Your task to perform on an android device: Open Wikipedia Image 0: 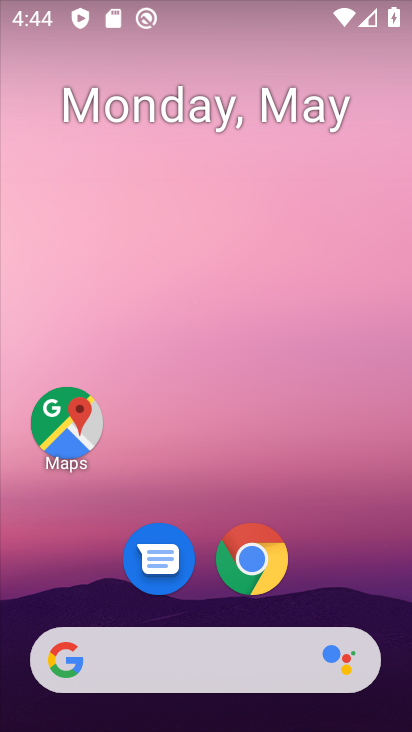
Step 0: drag from (316, 536) to (316, 44)
Your task to perform on an android device: Open Wikipedia Image 1: 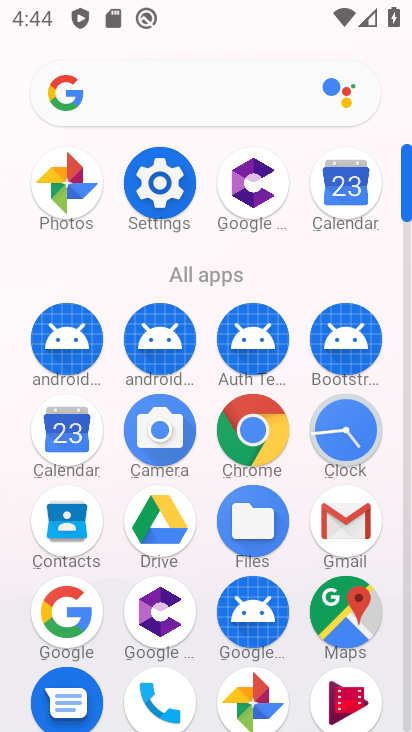
Step 1: click (261, 433)
Your task to perform on an android device: Open Wikipedia Image 2: 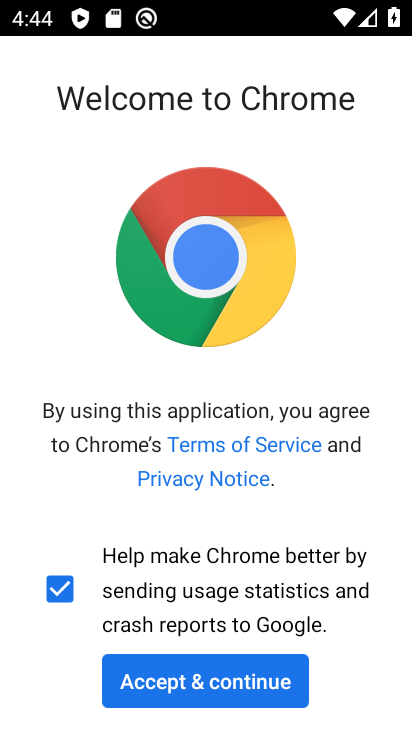
Step 2: click (192, 676)
Your task to perform on an android device: Open Wikipedia Image 3: 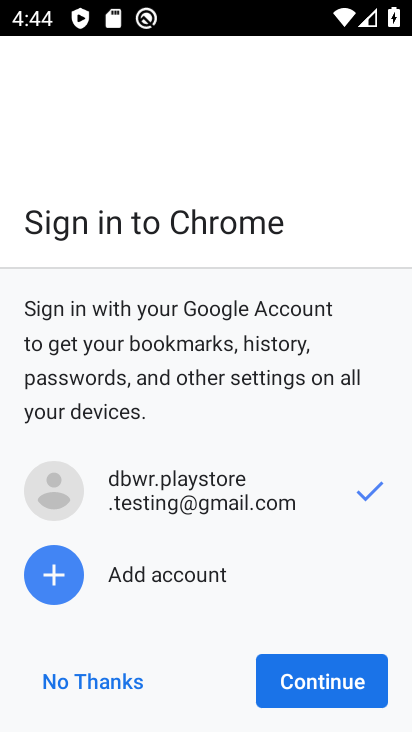
Step 3: click (116, 679)
Your task to perform on an android device: Open Wikipedia Image 4: 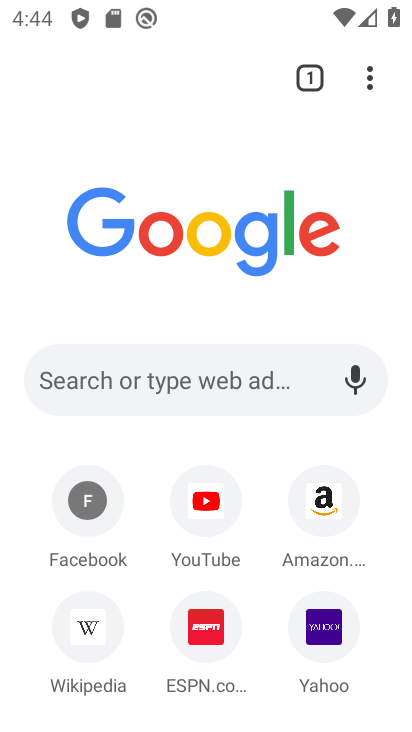
Step 4: drag from (377, 75) to (201, 149)
Your task to perform on an android device: Open Wikipedia Image 5: 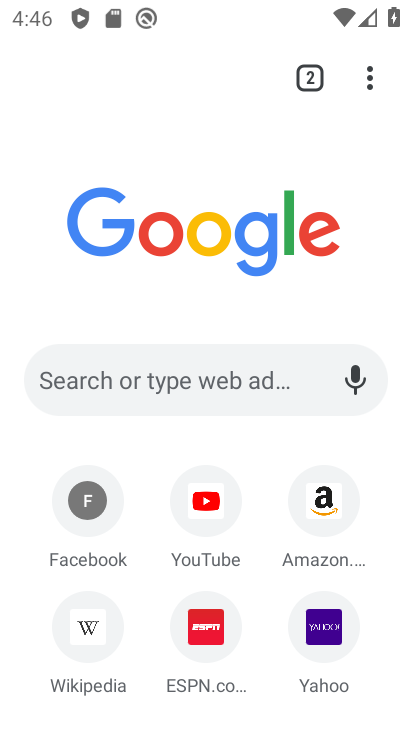
Step 5: click (89, 622)
Your task to perform on an android device: Open Wikipedia Image 6: 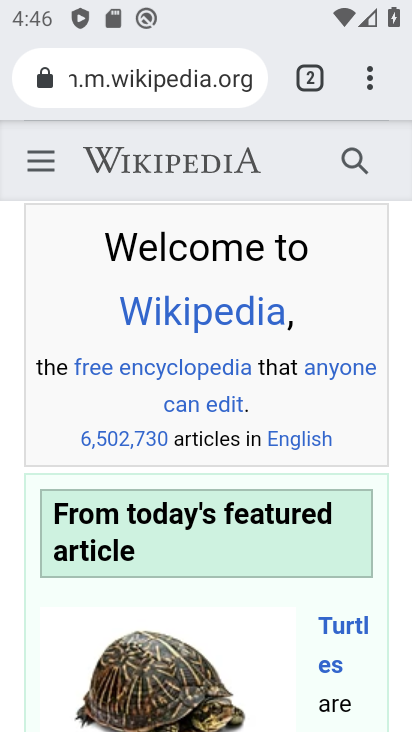
Step 6: task complete